Your task to perform on an android device: set an alarm Image 0: 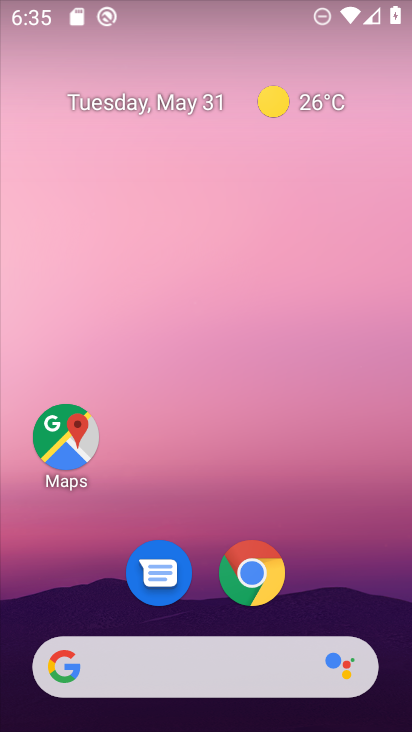
Step 0: drag from (384, 626) to (302, 37)
Your task to perform on an android device: set an alarm Image 1: 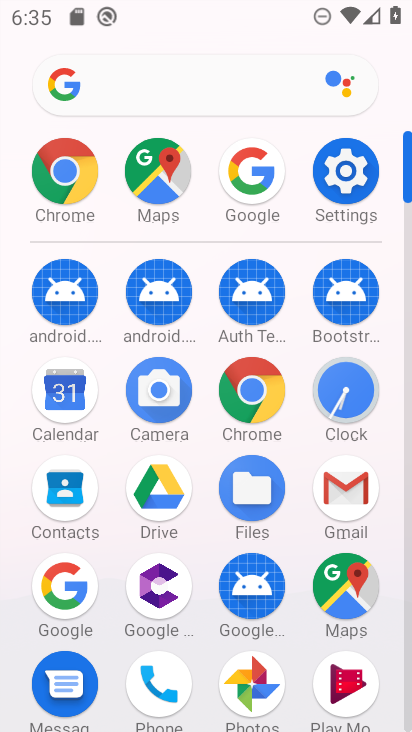
Step 1: click (348, 402)
Your task to perform on an android device: set an alarm Image 2: 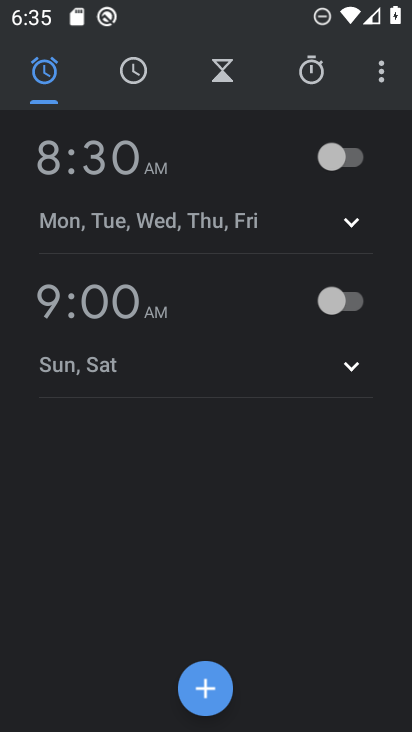
Step 2: click (334, 142)
Your task to perform on an android device: set an alarm Image 3: 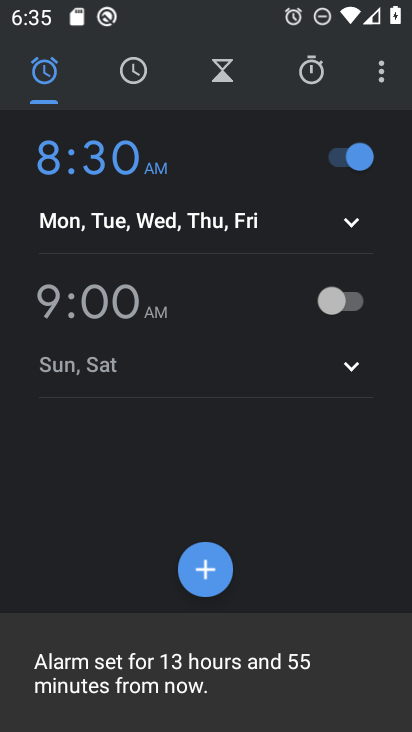
Step 3: task complete